Your task to perform on an android device: Open the Play Movies app and select the watchlist tab. Image 0: 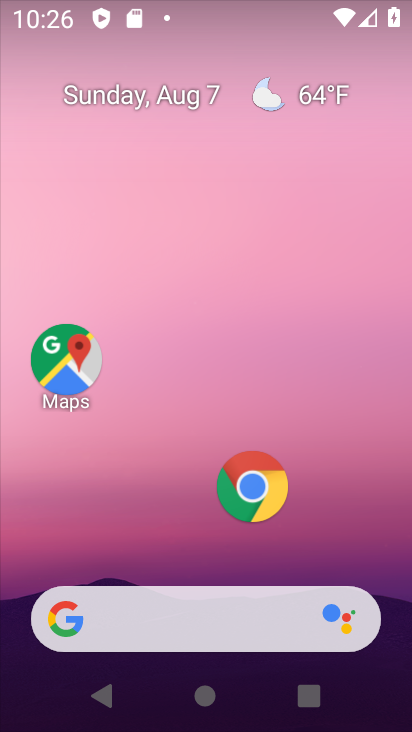
Step 0: drag from (240, 171) to (191, 67)
Your task to perform on an android device: Open the Play Movies app and select the watchlist tab. Image 1: 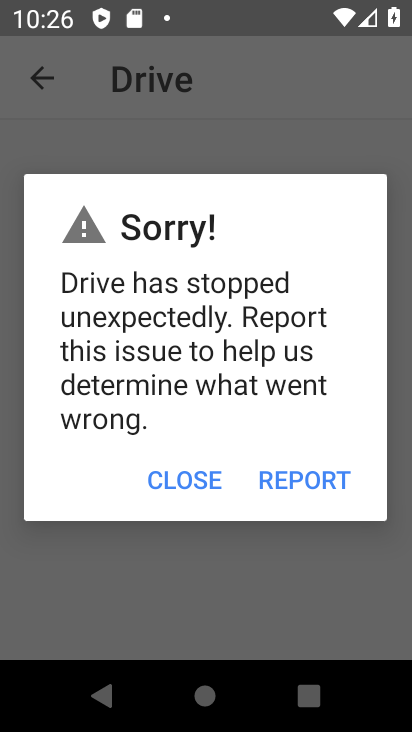
Step 1: press home button
Your task to perform on an android device: Open the Play Movies app and select the watchlist tab. Image 2: 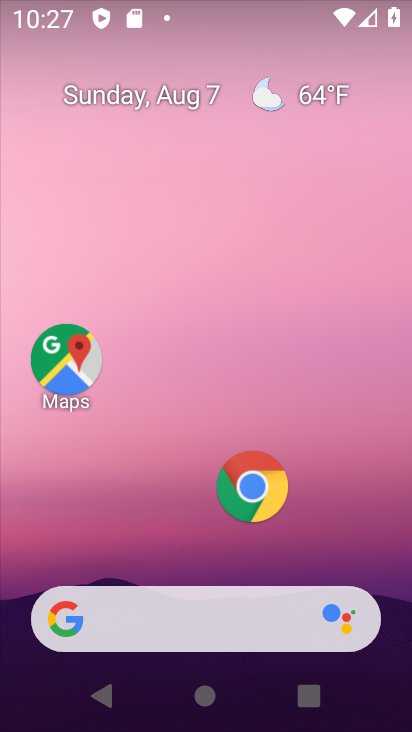
Step 2: drag from (239, 679) to (245, 108)
Your task to perform on an android device: Open the Play Movies app and select the watchlist tab. Image 3: 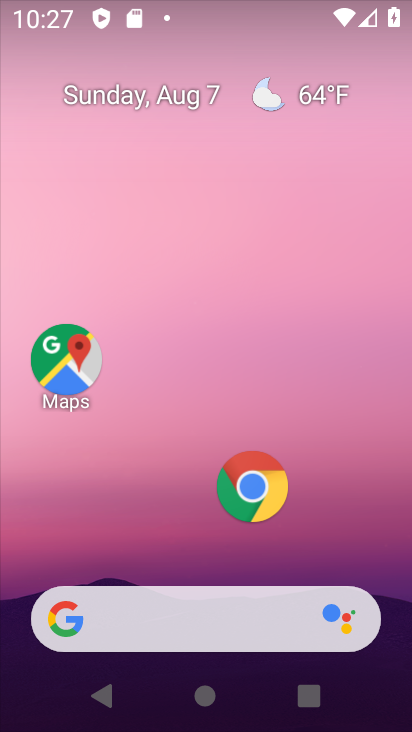
Step 3: drag from (276, 703) to (310, 202)
Your task to perform on an android device: Open the Play Movies app and select the watchlist tab. Image 4: 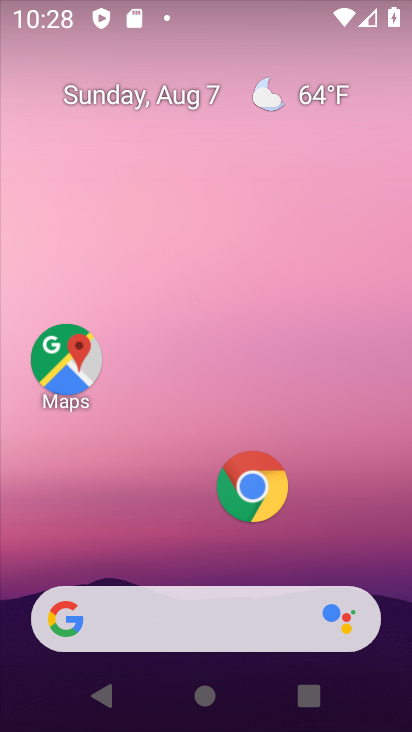
Step 4: drag from (247, 640) to (264, 126)
Your task to perform on an android device: Open the Play Movies app and select the watchlist tab. Image 5: 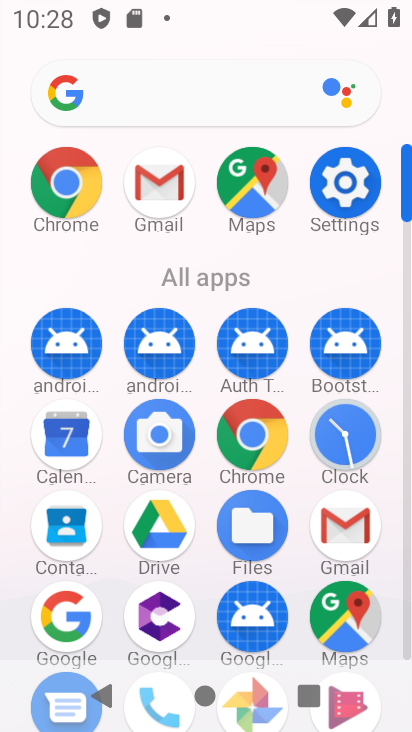
Step 5: drag from (213, 462) to (316, 22)
Your task to perform on an android device: Open the Play Movies app and select the watchlist tab. Image 6: 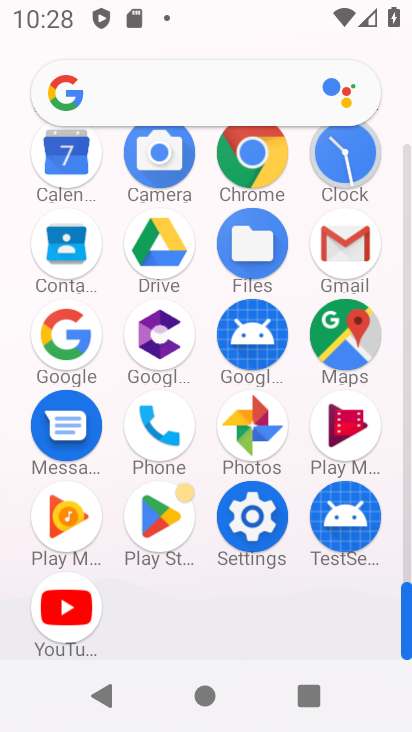
Step 6: click (347, 438)
Your task to perform on an android device: Open the Play Movies app and select the watchlist tab. Image 7: 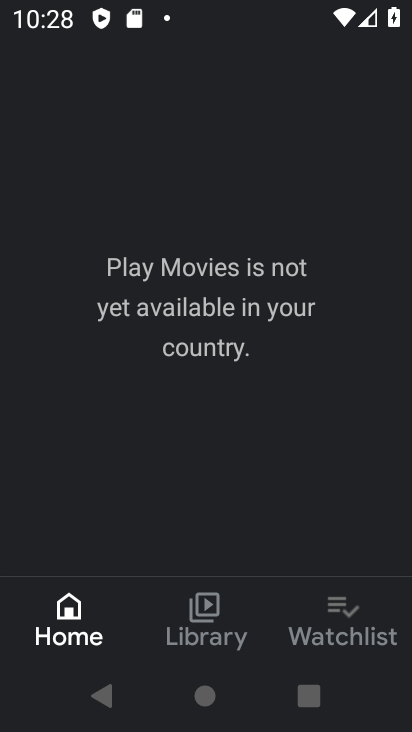
Step 7: click (361, 622)
Your task to perform on an android device: Open the Play Movies app and select the watchlist tab. Image 8: 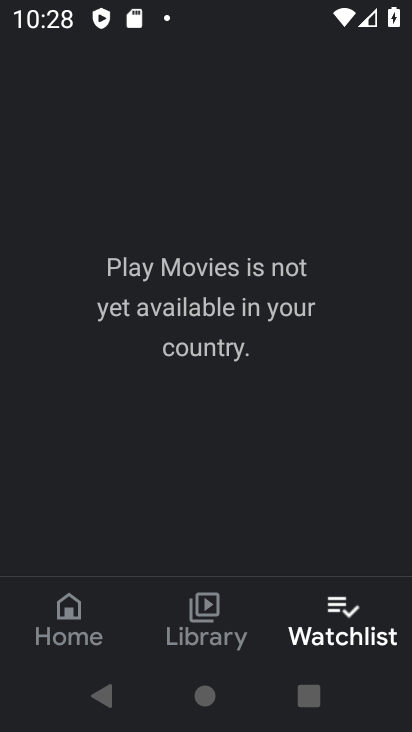
Step 8: task complete